Your task to perform on an android device: change the upload size in google photos Image 0: 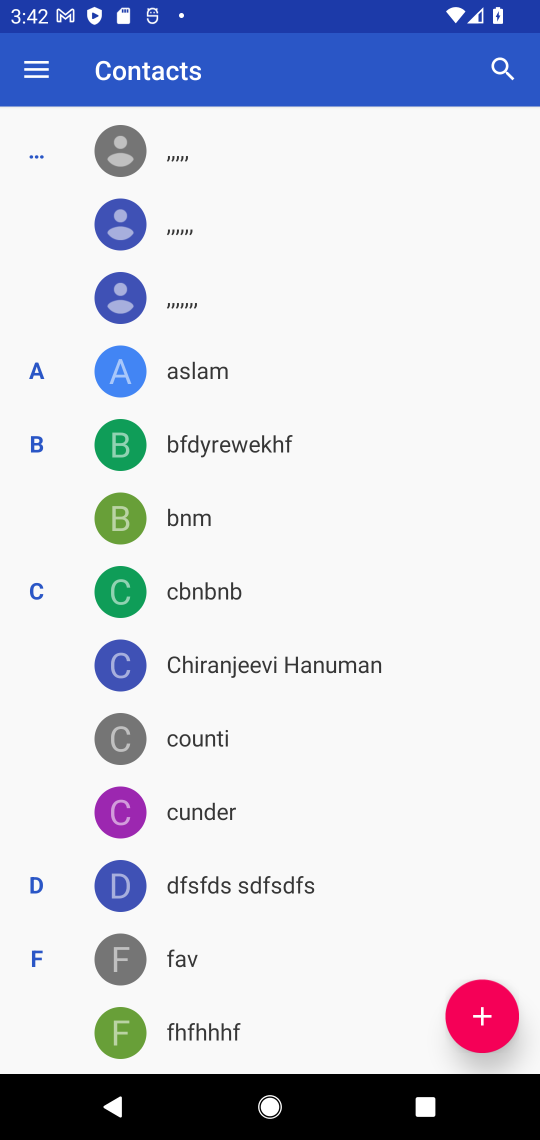
Step 0: press home button
Your task to perform on an android device: change the upload size in google photos Image 1: 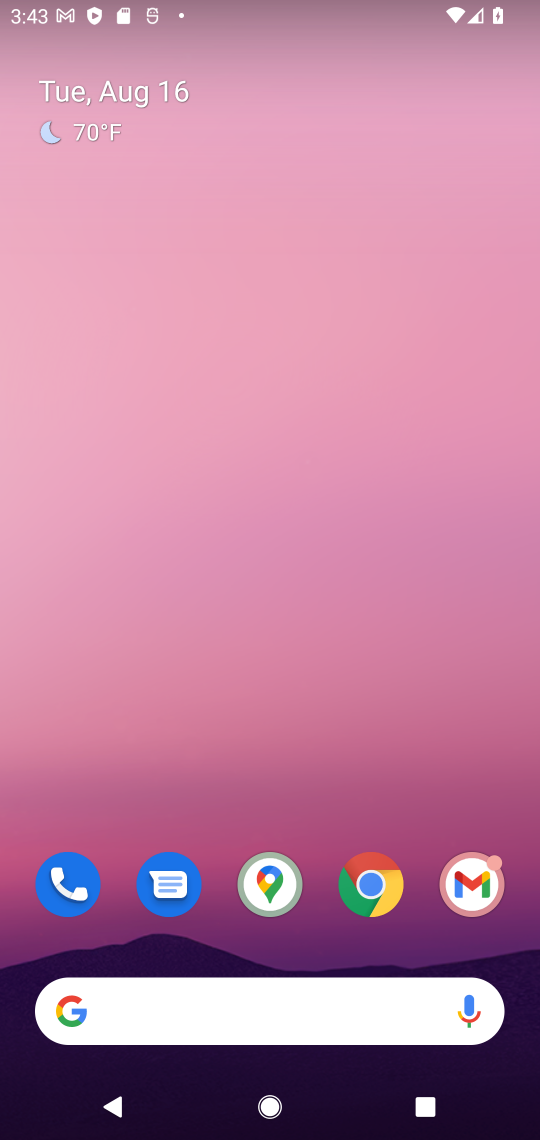
Step 1: drag from (333, 609) to (341, 253)
Your task to perform on an android device: change the upload size in google photos Image 2: 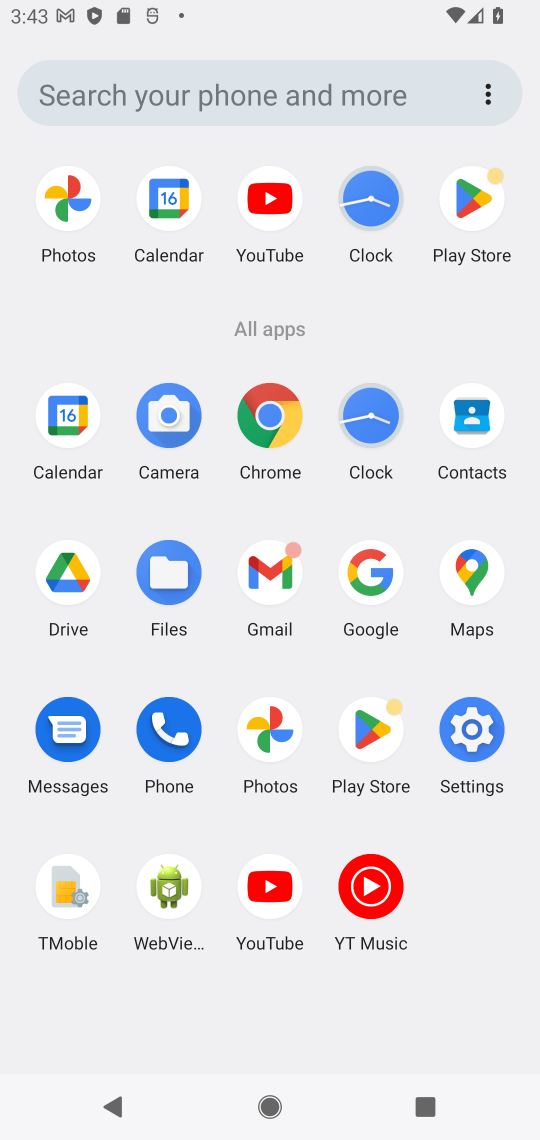
Step 2: click (55, 211)
Your task to perform on an android device: change the upload size in google photos Image 3: 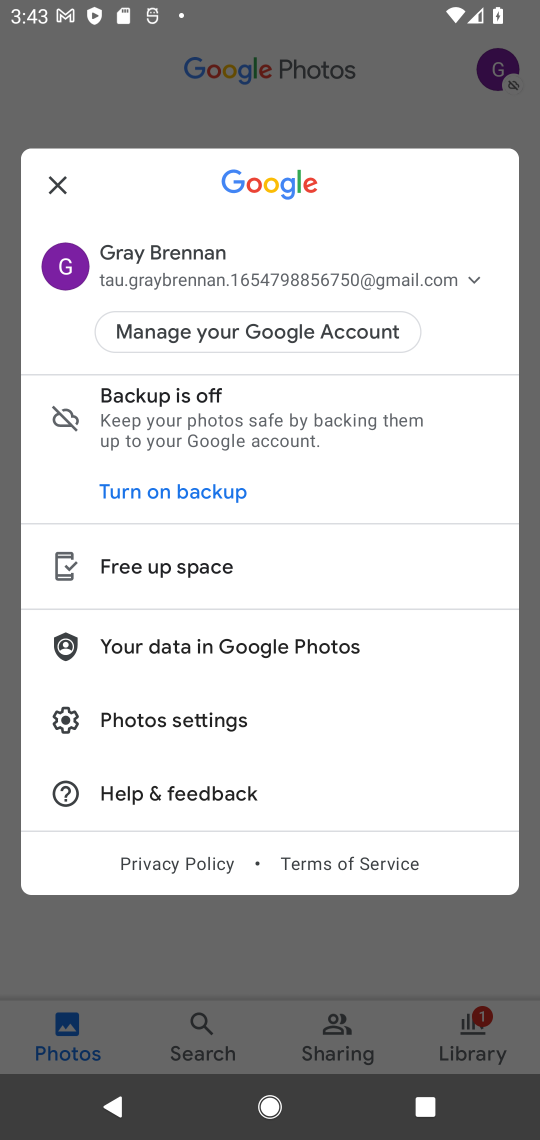
Step 3: click (56, 179)
Your task to perform on an android device: change the upload size in google photos Image 4: 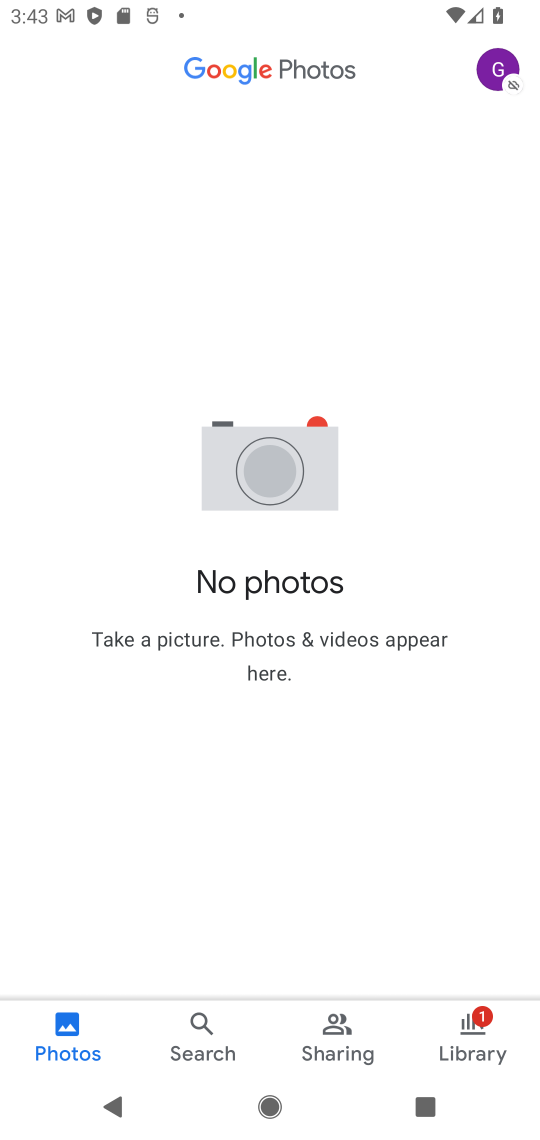
Step 4: click (521, 81)
Your task to perform on an android device: change the upload size in google photos Image 5: 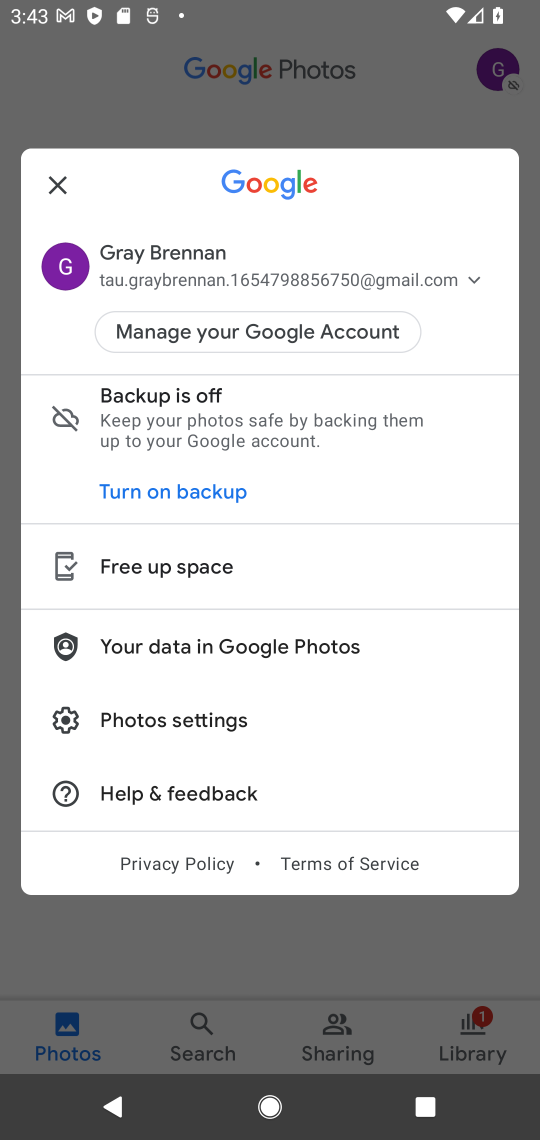
Step 5: click (102, 715)
Your task to perform on an android device: change the upload size in google photos Image 6: 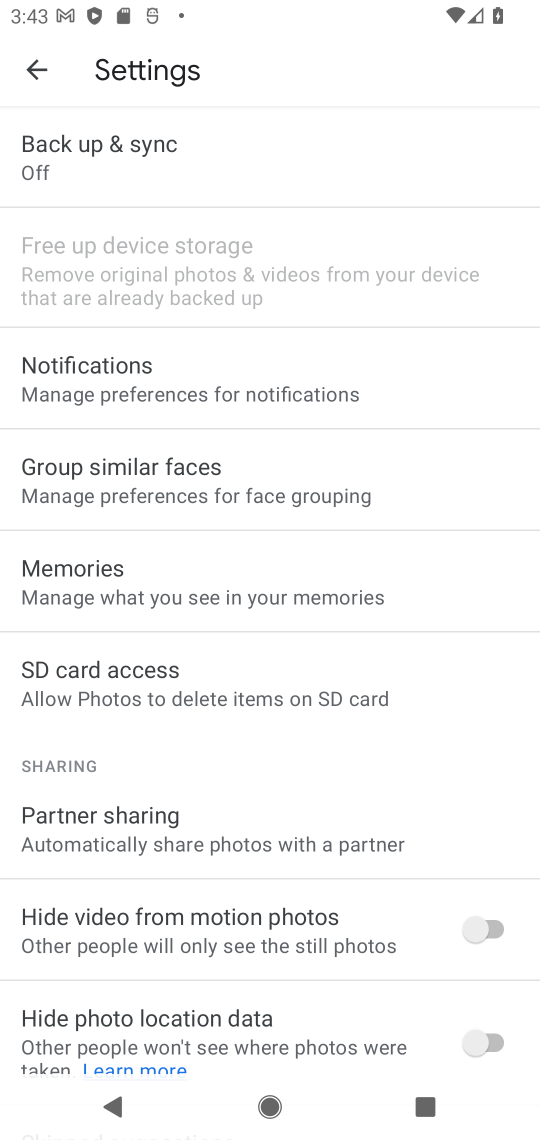
Step 6: click (188, 165)
Your task to perform on an android device: change the upload size in google photos Image 7: 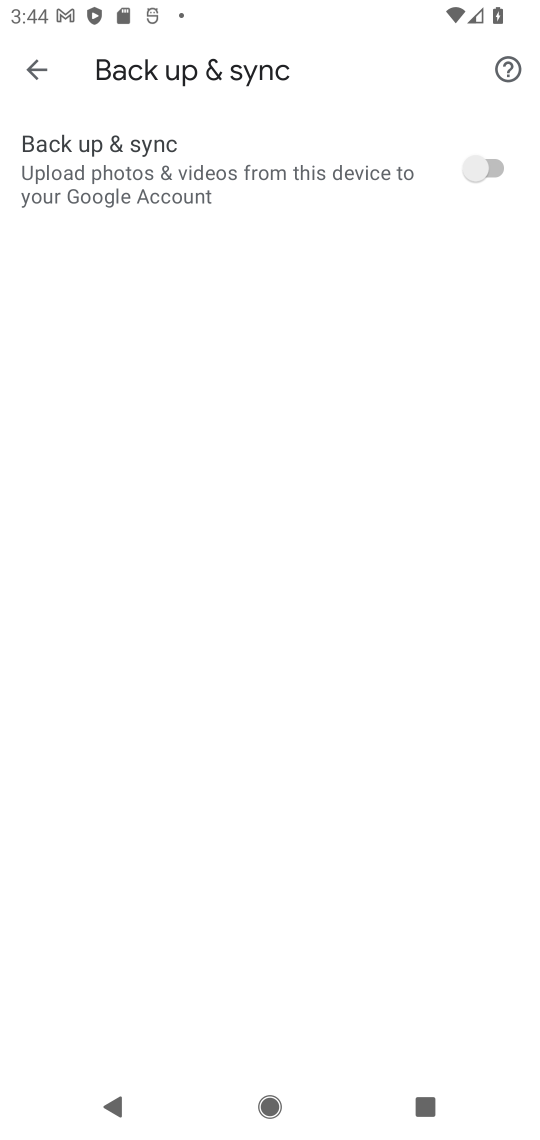
Step 7: click (221, 186)
Your task to perform on an android device: change the upload size in google photos Image 8: 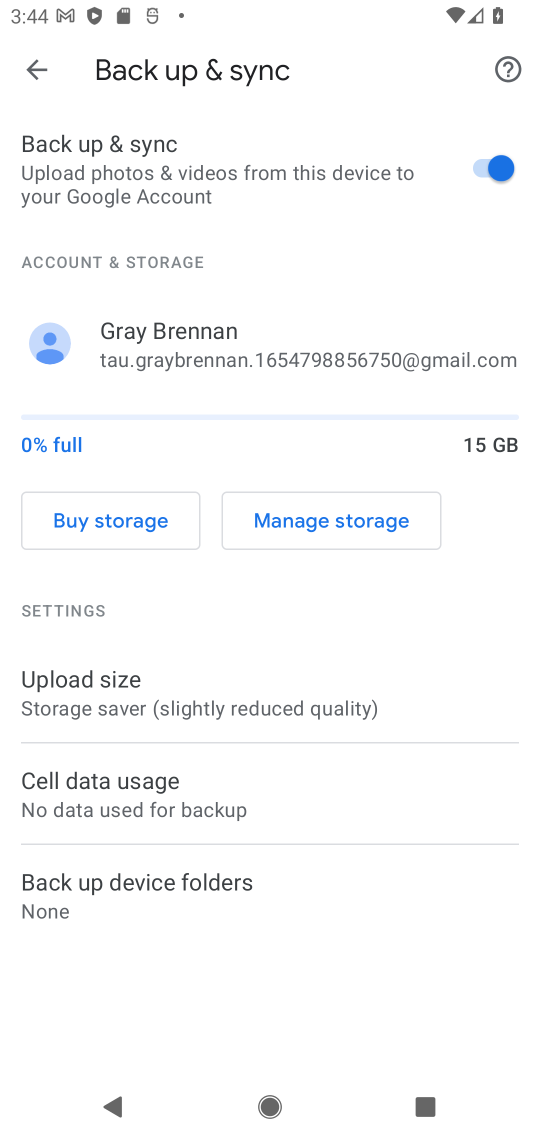
Step 8: click (169, 679)
Your task to perform on an android device: change the upload size in google photos Image 9: 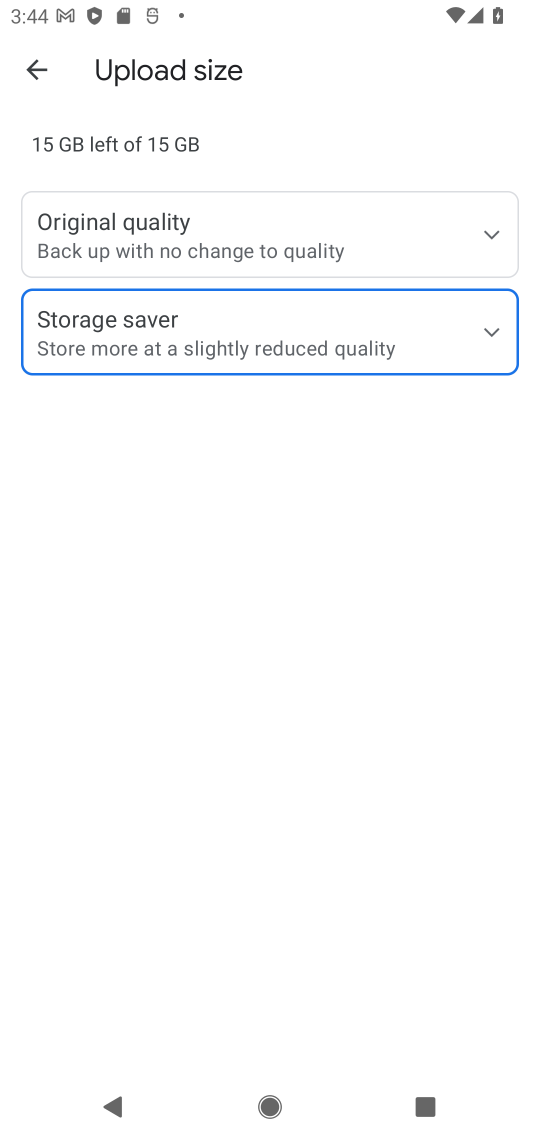
Step 9: click (166, 238)
Your task to perform on an android device: change the upload size in google photos Image 10: 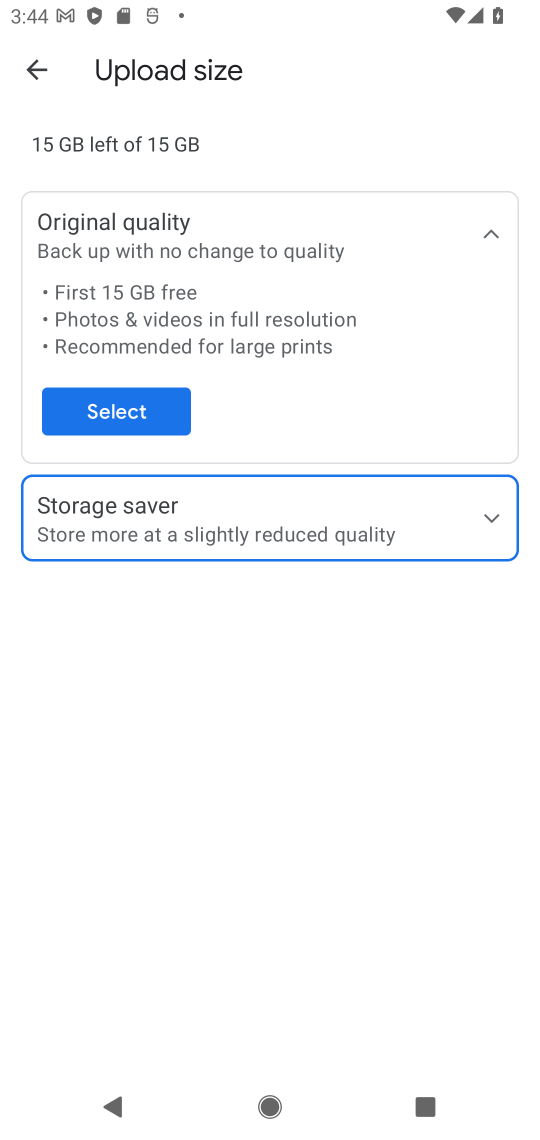
Step 10: click (122, 407)
Your task to perform on an android device: change the upload size in google photos Image 11: 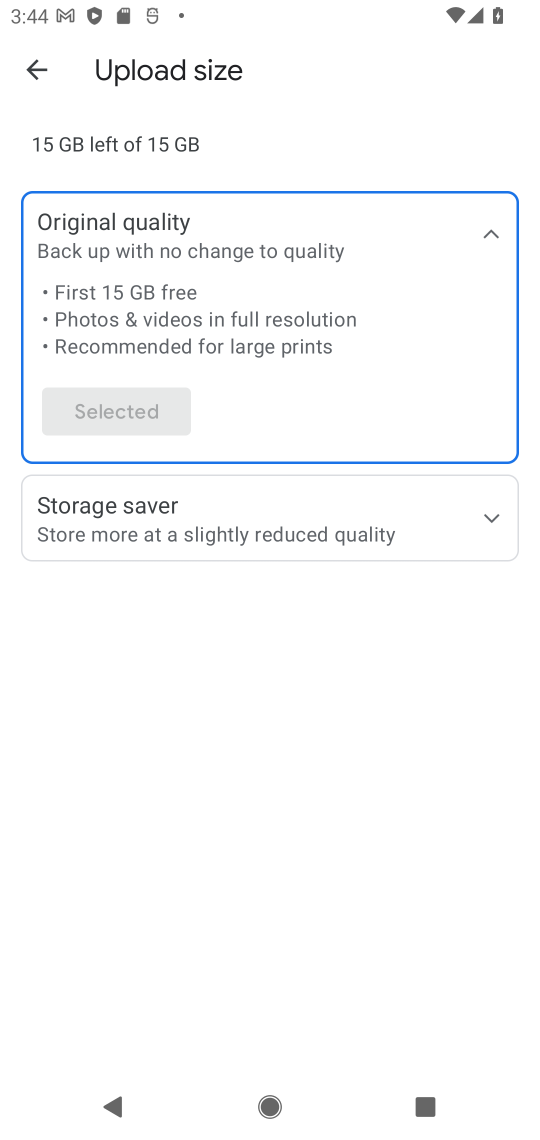
Step 11: task complete